Your task to perform on an android device: turn on showing notifications on the lock screen Image 0: 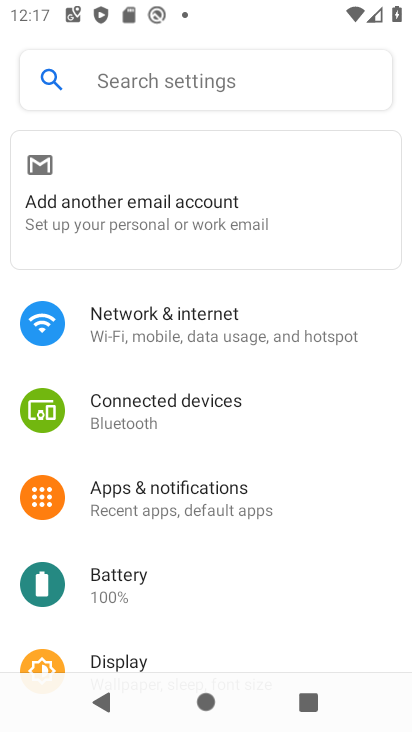
Step 0: press home button
Your task to perform on an android device: turn on showing notifications on the lock screen Image 1: 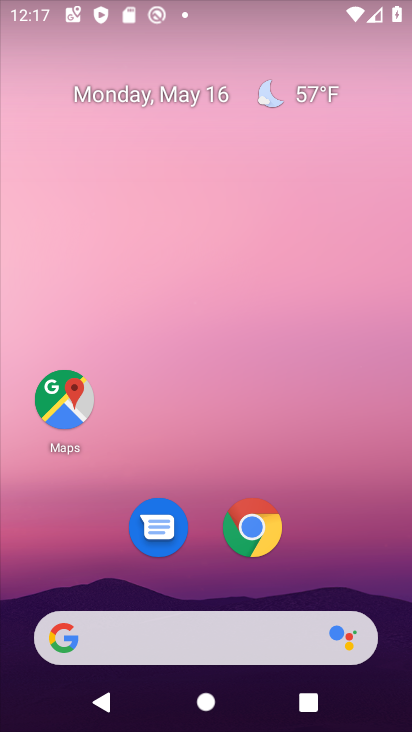
Step 1: drag from (214, 590) to (254, 7)
Your task to perform on an android device: turn on showing notifications on the lock screen Image 2: 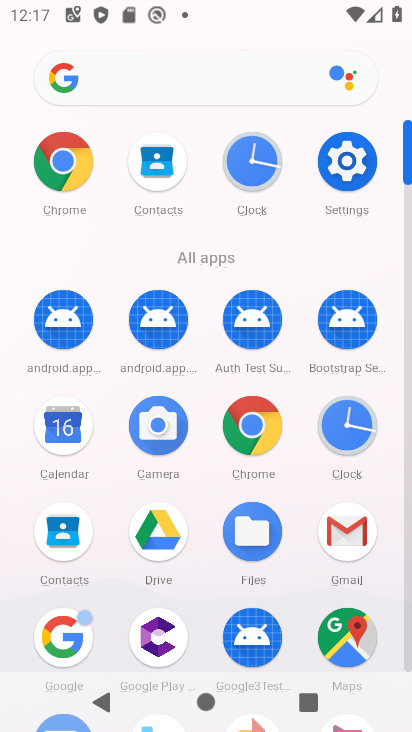
Step 2: click (353, 157)
Your task to perform on an android device: turn on showing notifications on the lock screen Image 3: 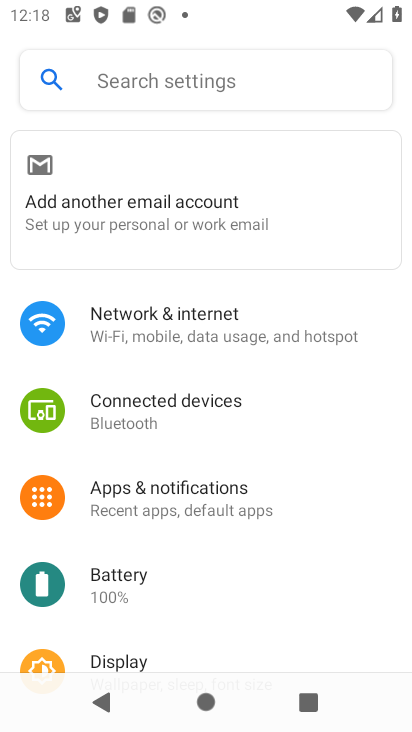
Step 3: click (180, 502)
Your task to perform on an android device: turn on showing notifications on the lock screen Image 4: 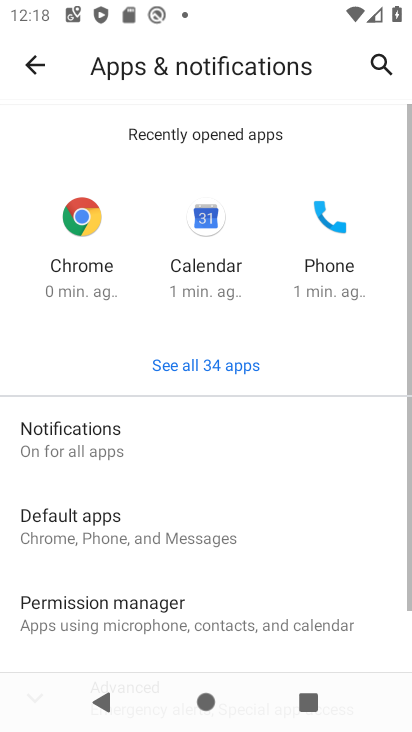
Step 4: click (104, 433)
Your task to perform on an android device: turn on showing notifications on the lock screen Image 5: 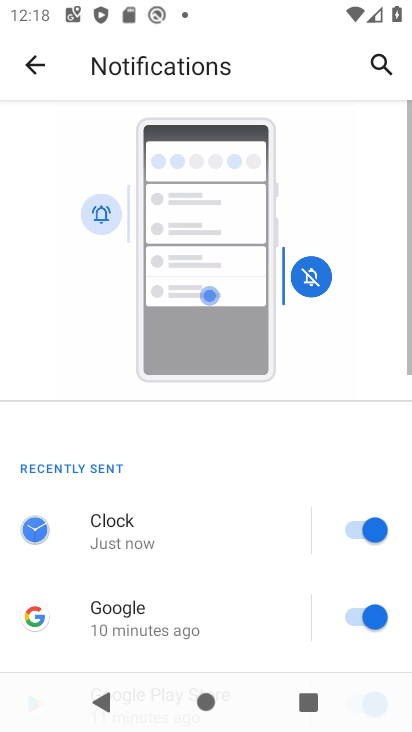
Step 5: drag from (206, 510) to (251, 162)
Your task to perform on an android device: turn on showing notifications on the lock screen Image 6: 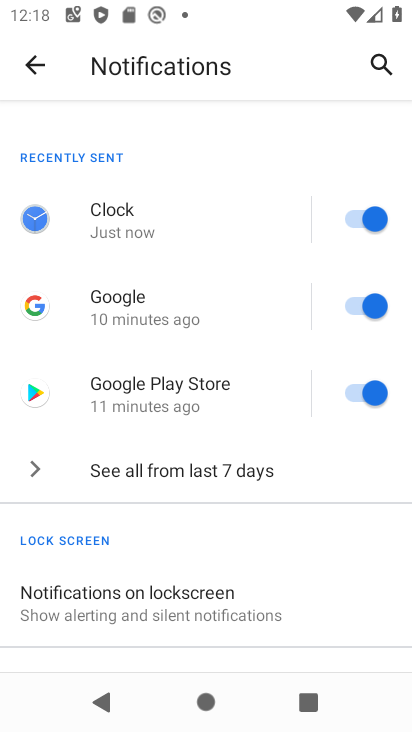
Step 6: drag from (167, 583) to (185, 467)
Your task to perform on an android device: turn on showing notifications on the lock screen Image 7: 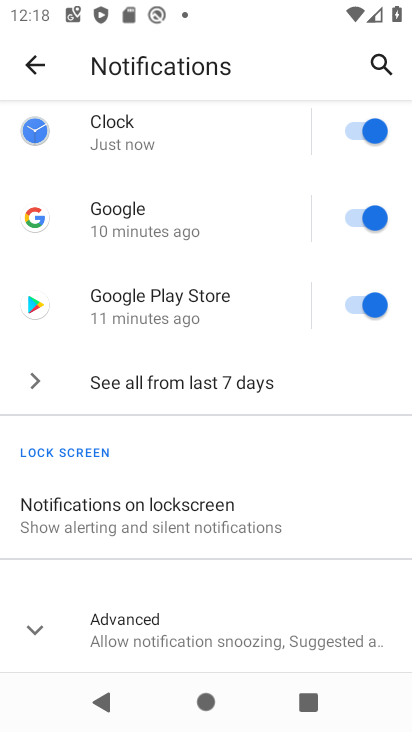
Step 7: click (121, 533)
Your task to perform on an android device: turn on showing notifications on the lock screen Image 8: 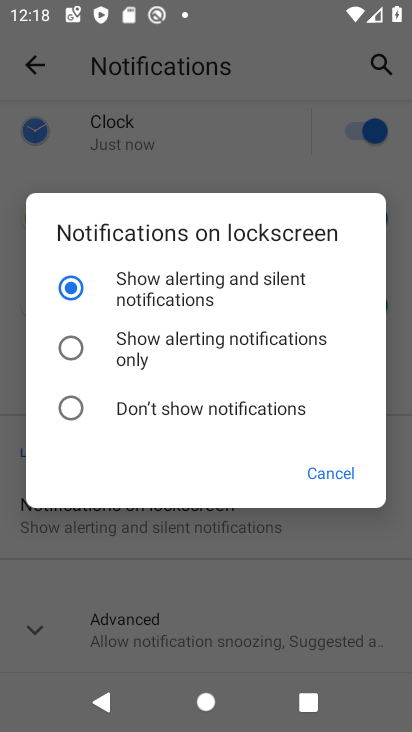
Step 8: task complete